Your task to perform on an android device: open a bookmark in the chrome app Image 0: 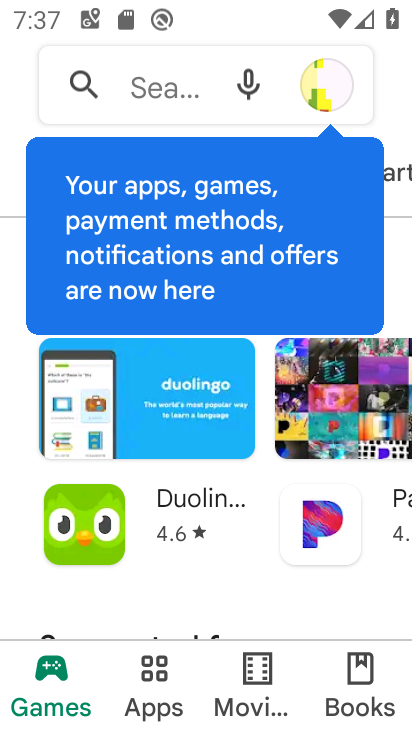
Step 0: press home button
Your task to perform on an android device: open a bookmark in the chrome app Image 1: 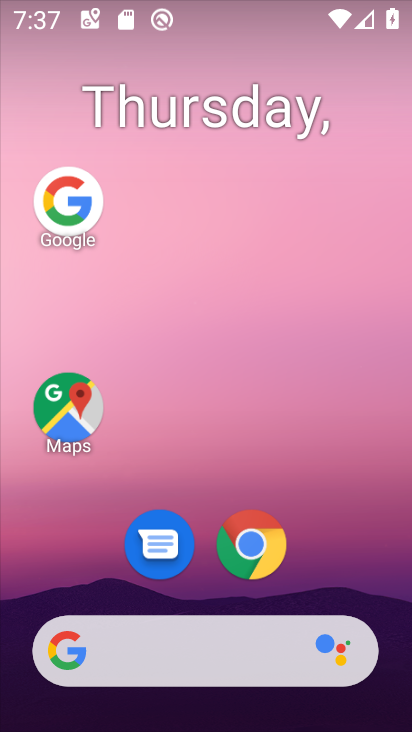
Step 1: drag from (143, 698) to (187, 214)
Your task to perform on an android device: open a bookmark in the chrome app Image 2: 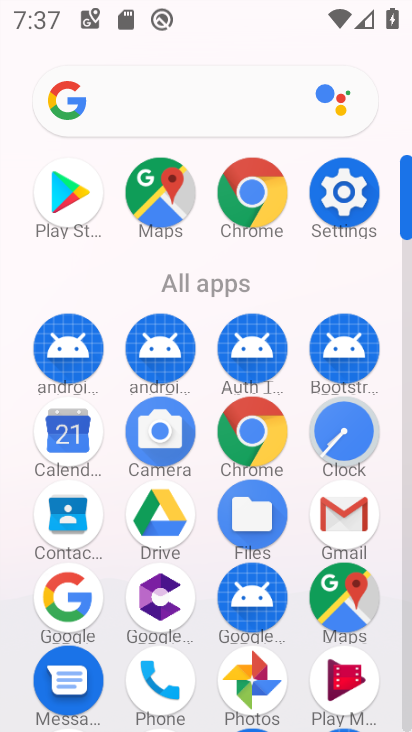
Step 2: click (257, 194)
Your task to perform on an android device: open a bookmark in the chrome app Image 3: 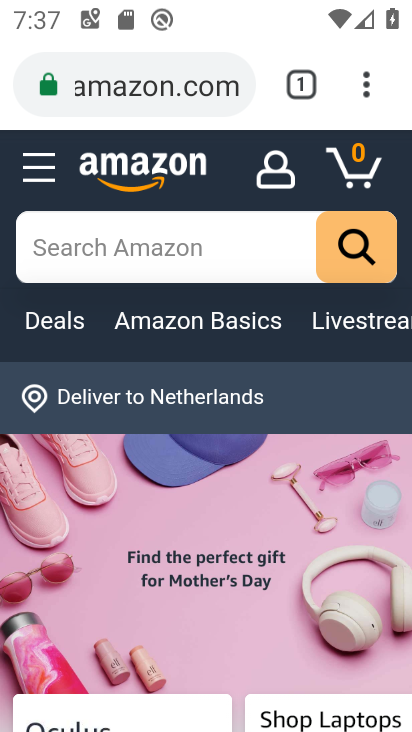
Step 3: click (373, 81)
Your task to perform on an android device: open a bookmark in the chrome app Image 4: 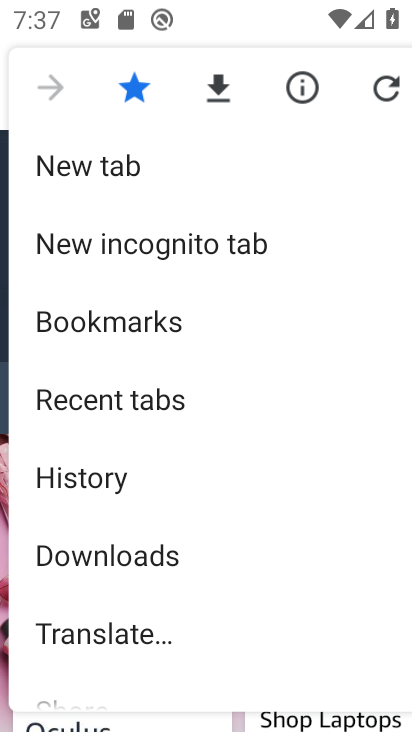
Step 4: click (117, 326)
Your task to perform on an android device: open a bookmark in the chrome app Image 5: 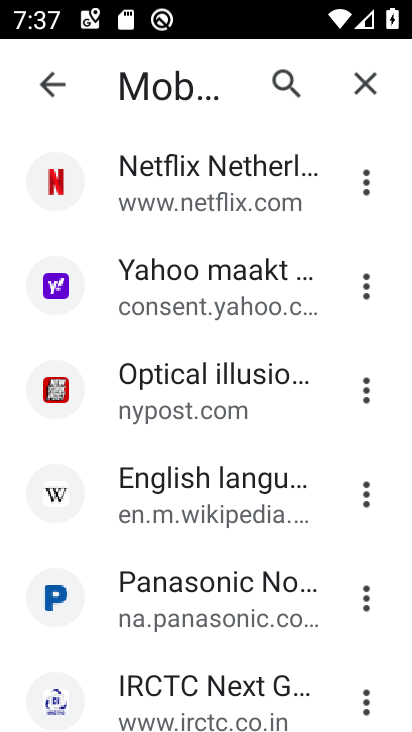
Step 5: click (154, 483)
Your task to perform on an android device: open a bookmark in the chrome app Image 6: 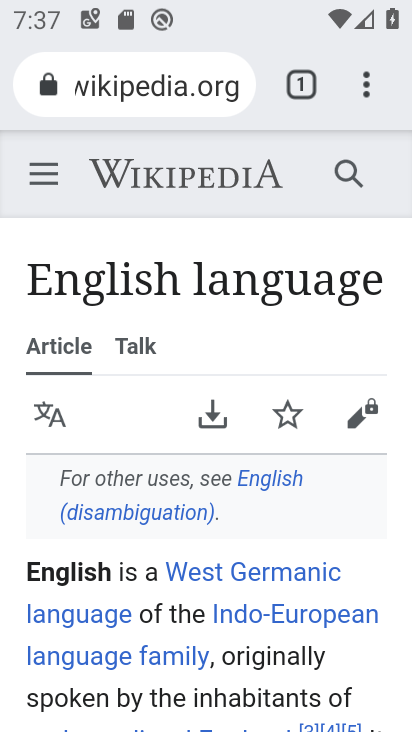
Step 6: task complete